Your task to perform on an android device: What's the latest video from GameSpot? Image 0: 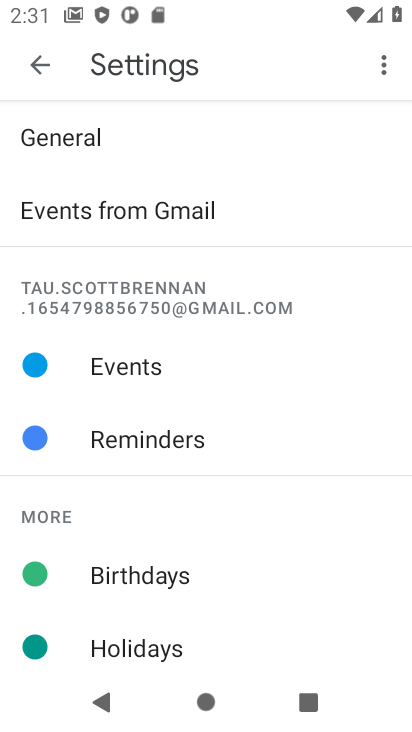
Step 0: press home button
Your task to perform on an android device: What's the latest video from GameSpot? Image 1: 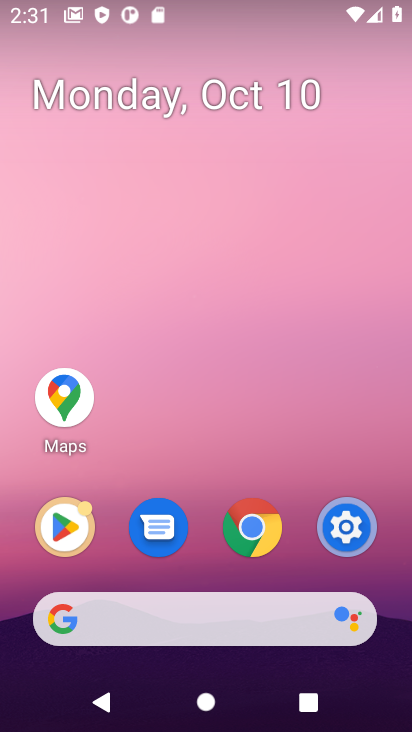
Step 1: click (235, 616)
Your task to perform on an android device: What's the latest video from GameSpot? Image 2: 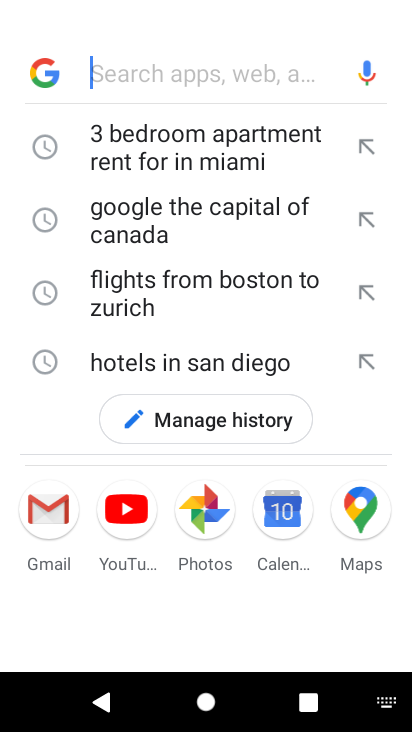
Step 2: type "What's the latest video from GameSpot"
Your task to perform on an android device: What's the latest video from GameSpot? Image 3: 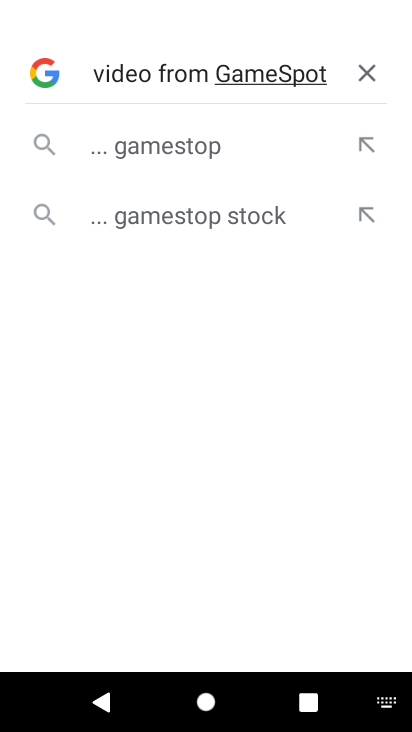
Step 3: press enter
Your task to perform on an android device: What's the latest video from GameSpot? Image 4: 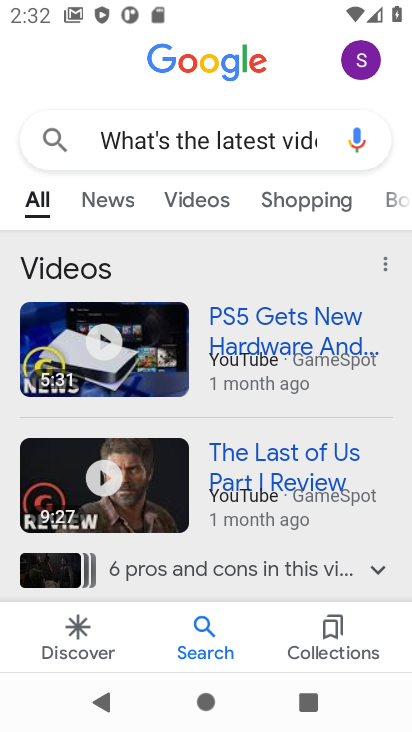
Step 4: drag from (350, 528) to (341, 310)
Your task to perform on an android device: What's the latest video from GameSpot? Image 5: 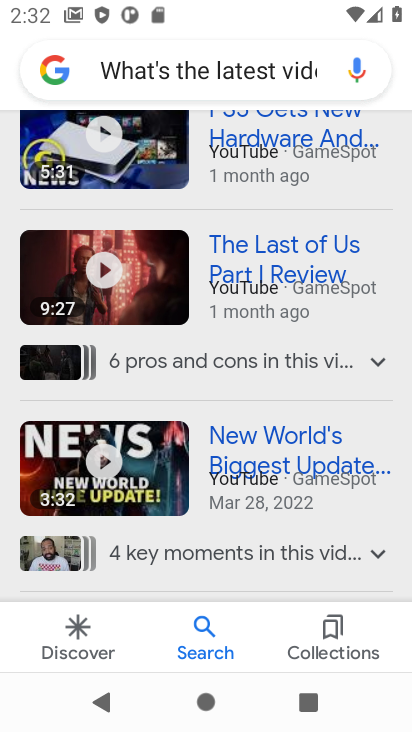
Step 5: drag from (300, 527) to (305, 280)
Your task to perform on an android device: What's the latest video from GameSpot? Image 6: 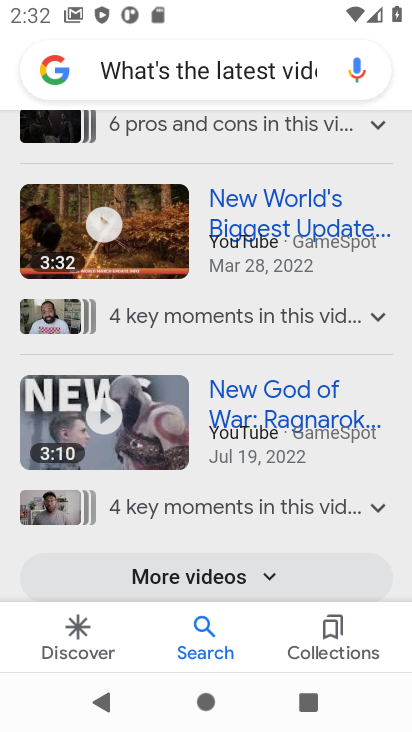
Step 6: drag from (271, 535) to (276, 320)
Your task to perform on an android device: What's the latest video from GameSpot? Image 7: 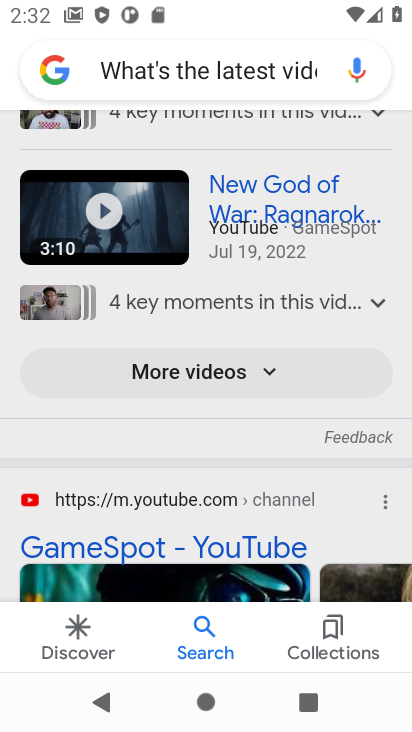
Step 7: drag from (273, 535) to (285, 334)
Your task to perform on an android device: What's the latest video from GameSpot? Image 8: 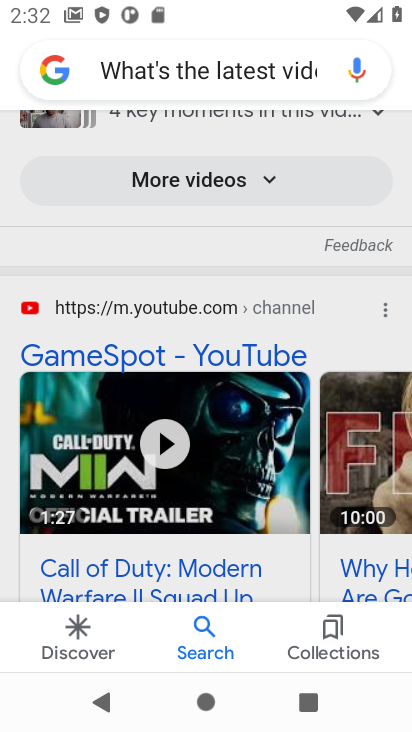
Step 8: click (159, 456)
Your task to perform on an android device: What's the latest video from GameSpot? Image 9: 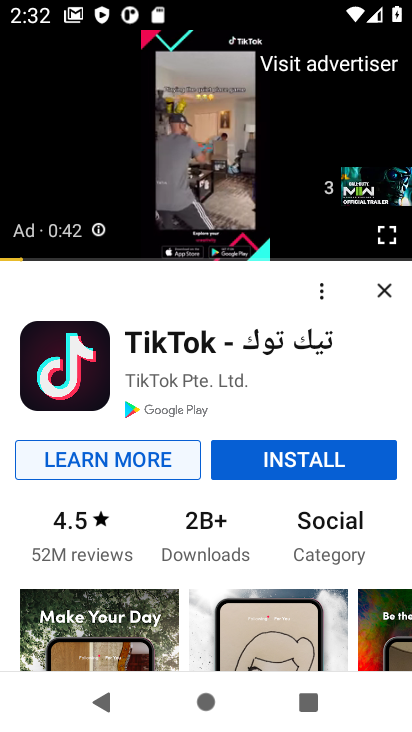
Step 9: click (384, 289)
Your task to perform on an android device: What's the latest video from GameSpot? Image 10: 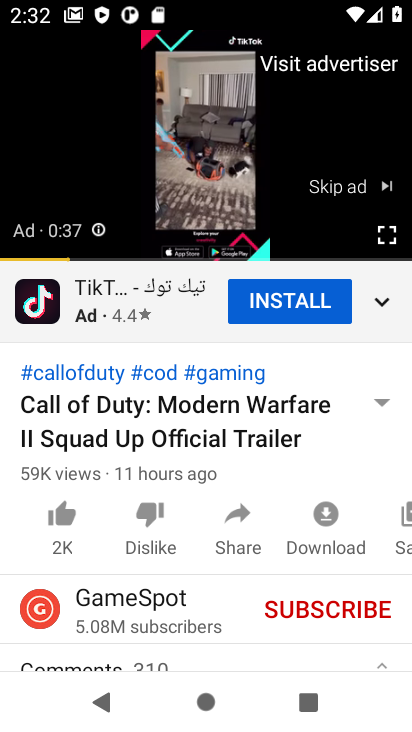
Step 10: click (348, 193)
Your task to perform on an android device: What's the latest video from GameSpot? Image 11: 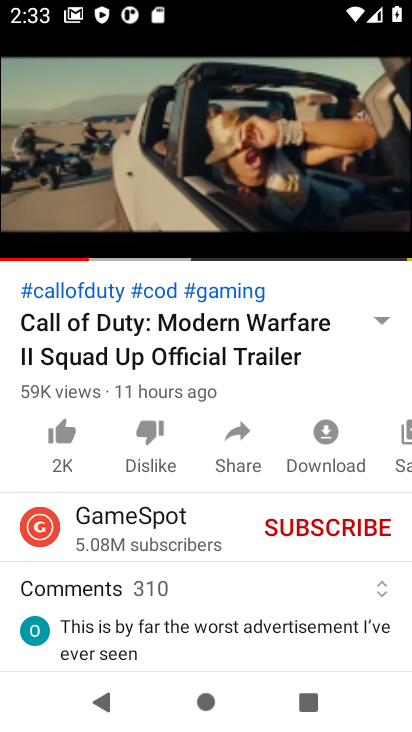
Step 11: task complete